Your task to perform on an android device: star an email in the gmail app Image 0: 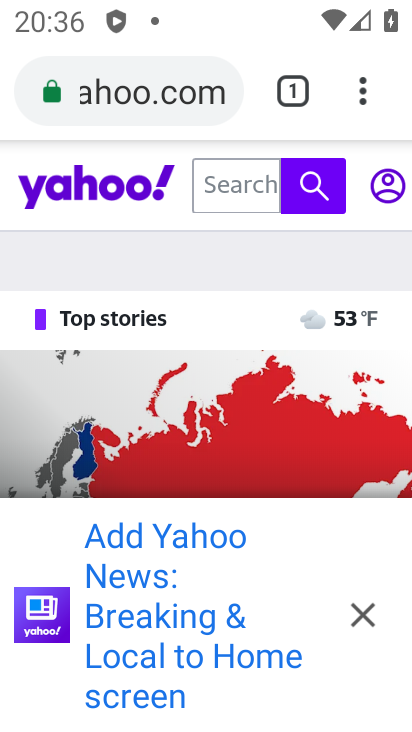
Step 0: press home button
Your task to perform on an android device: star an email in the gmail app Image 1: 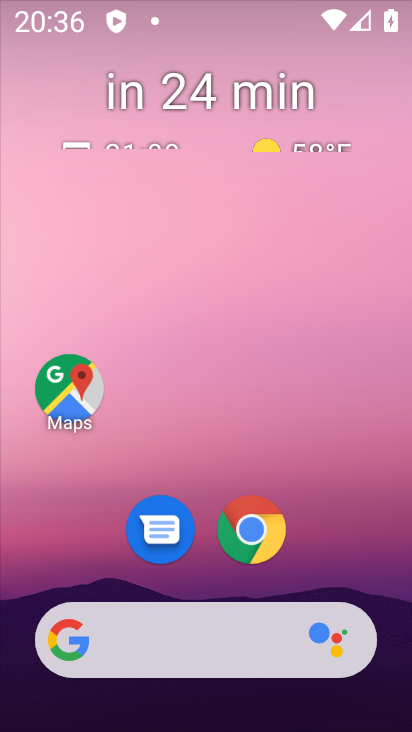
Step 1: drag from (197, 569) to (230, 22)
Your task to perform on an android device: star an email in the gmail app Image 2: 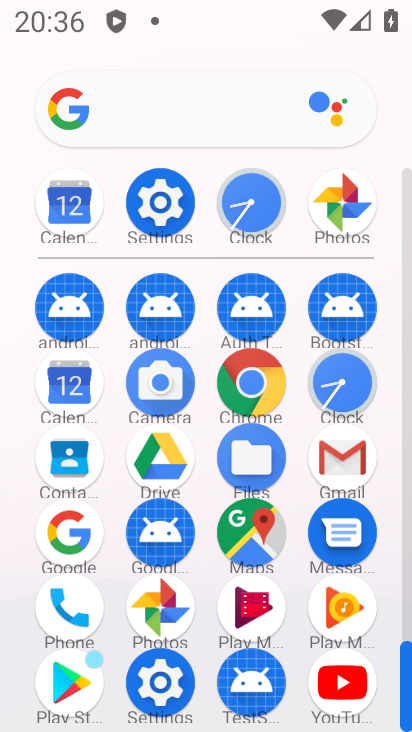
Step 2: click (346, 440)
Your task to perform on an android device: star an email in the gmail app Image 3: 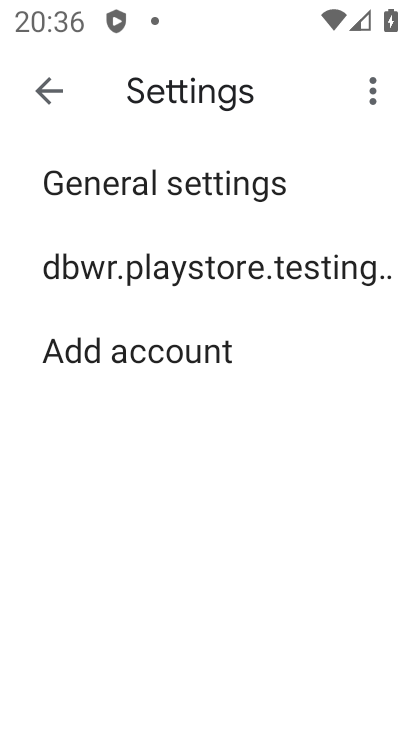
Step 3: press back button
Your task to perform on an android device: star an email in the gmail app Image 4: 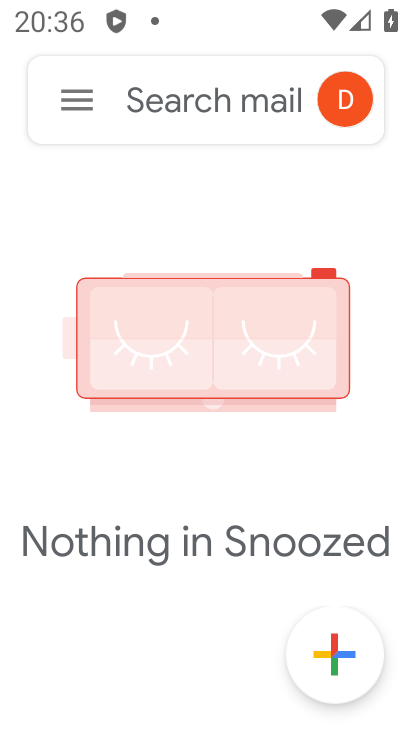
Step 4: click (70, 109)
Your task to perform on an android device: star an email in the gmail app Image 5: 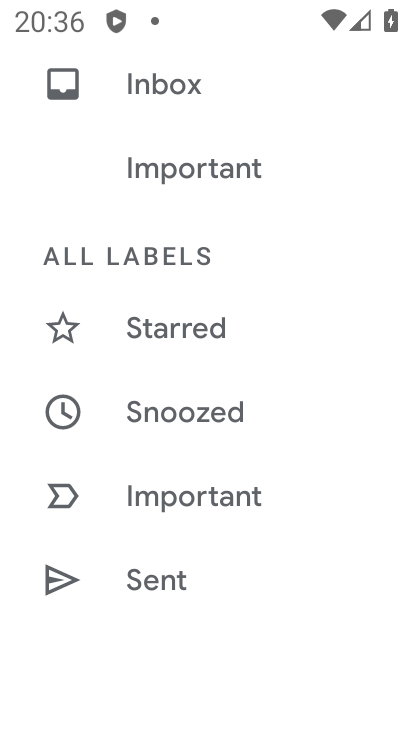
Step 5: drag from (255, 494) to (305, 39)
Your task to perform on an android device: star an email in the gmail app Image 6: 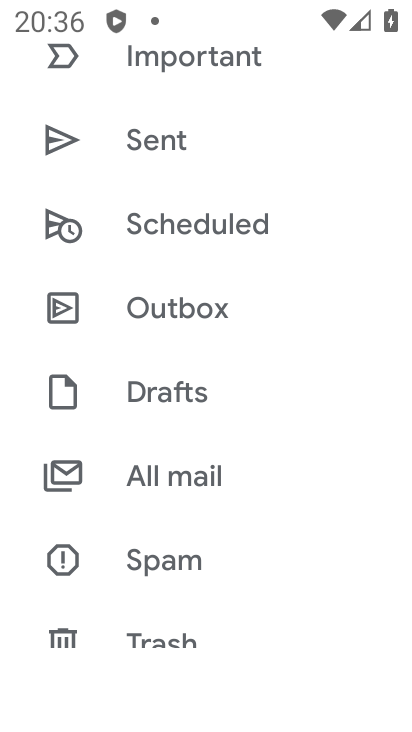
Step 6: click (176, 469)
Your task to perform on an android device: star an email in the gmail app Image 7: 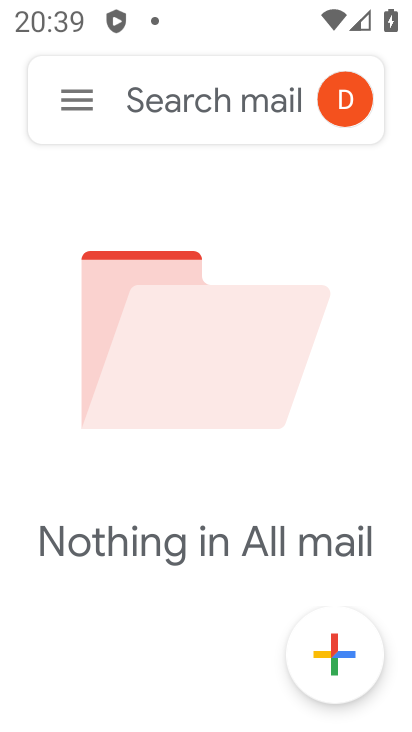
Step 7: task complete